Your task to perform on an android device: Open Yahoo.com Image 0: 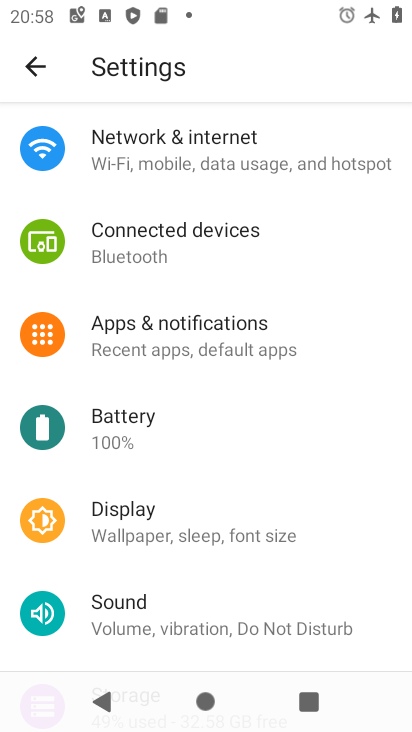
Step 0: press home button
Your task to perform on an android device: Open Yahoo.com Image 1: 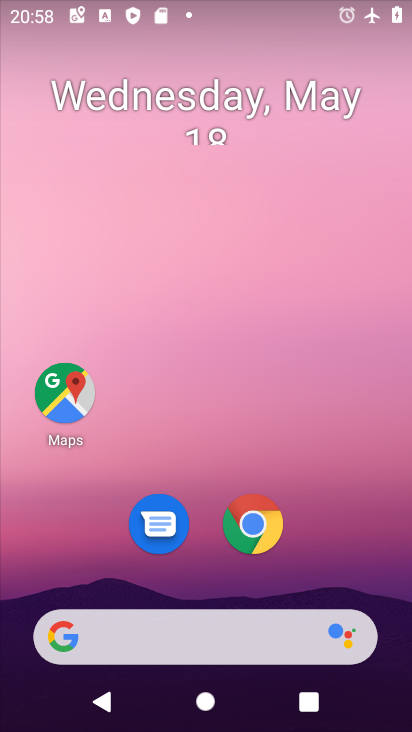
Step 1: click (278, 637)
Your task to perform on an android device: Open Yahoo.com Image 2: 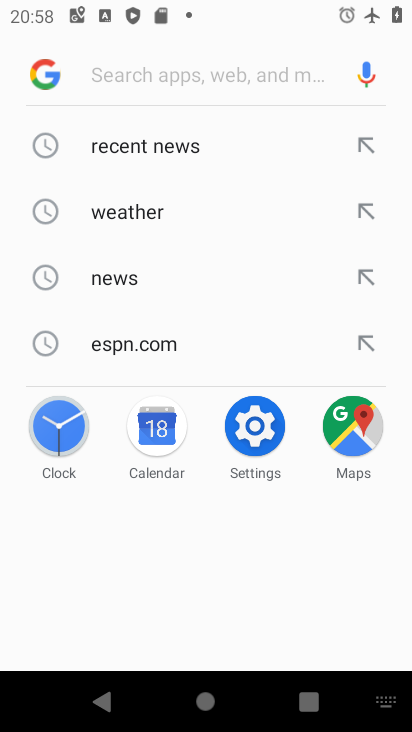
Step 2: type "yahoo.com"
Your task to perform on an android device: Open Yahoo.com Image 3: 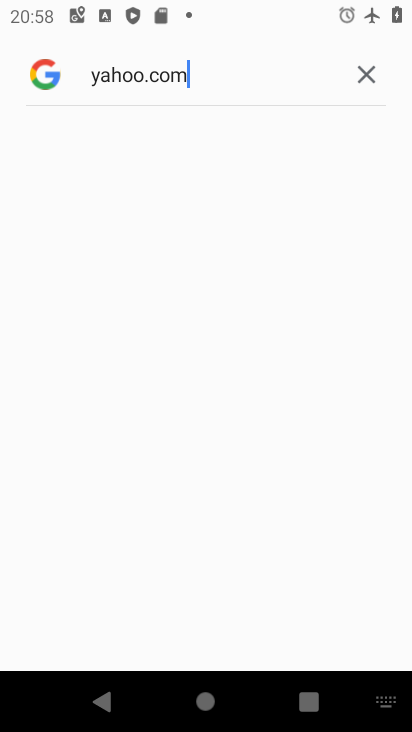
Step 3: task complete